Your task to perform on an android device: check storage Image 0: 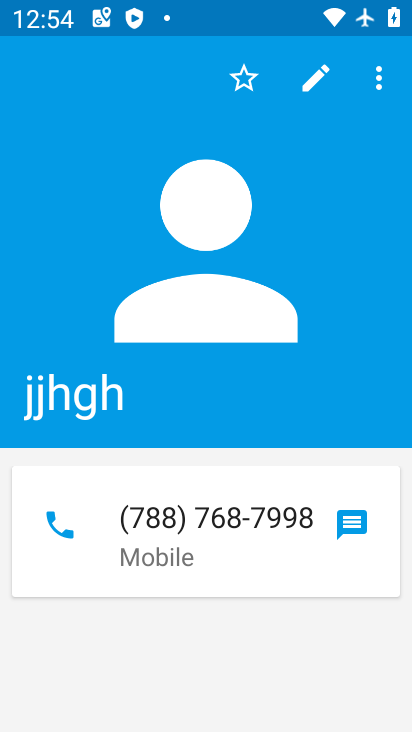
Step 0: press back button
Your task to perform on an android device: check storage Image 1: 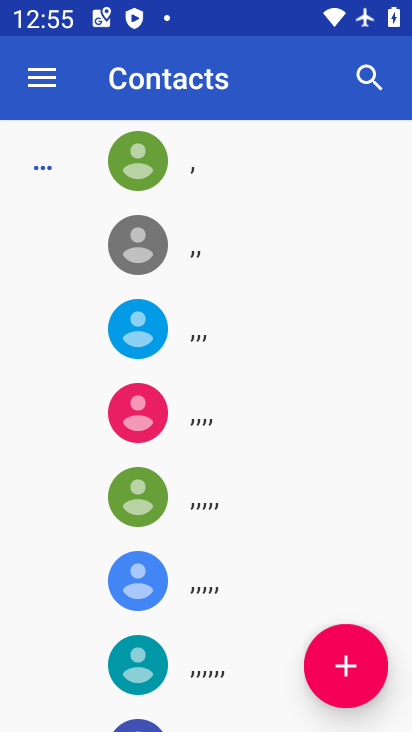
Step 1: press home button
Your task to perform on an android device: check storage Image 2: 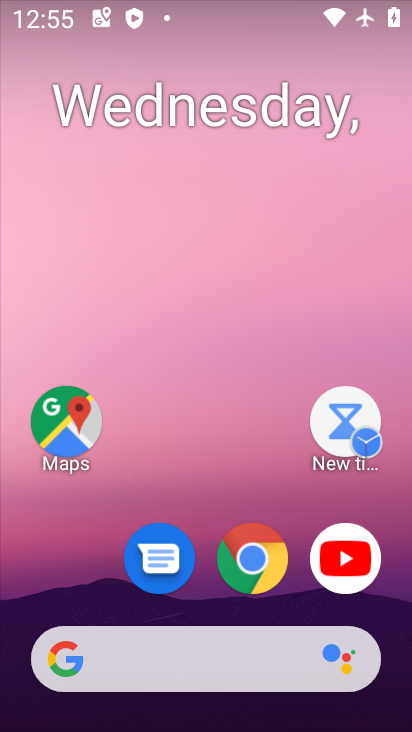
Step 2: drag from (272, 691) to (139, 88)
Your task to perform on an android device: check storage Image 3: 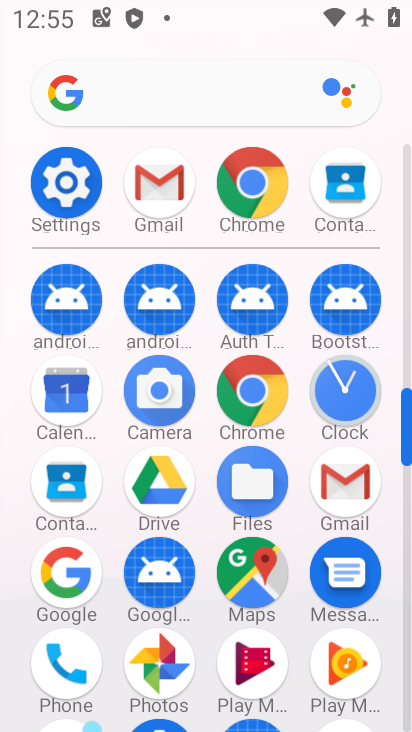
Step 3: click (61, 187)
Your task to perform on an android device: check storage Image 4: 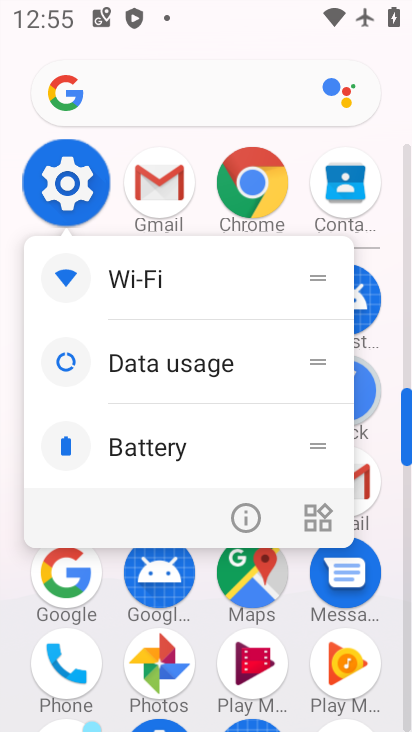
Step 4: click (72, 181)
Your task to perform on an android device: check storage Image 5: 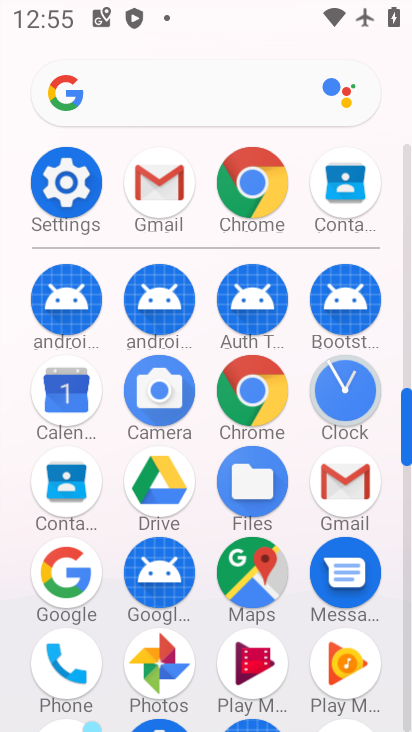
Step 5: click (81, 171)
Your task to perform on an android device: check storage Image 6: 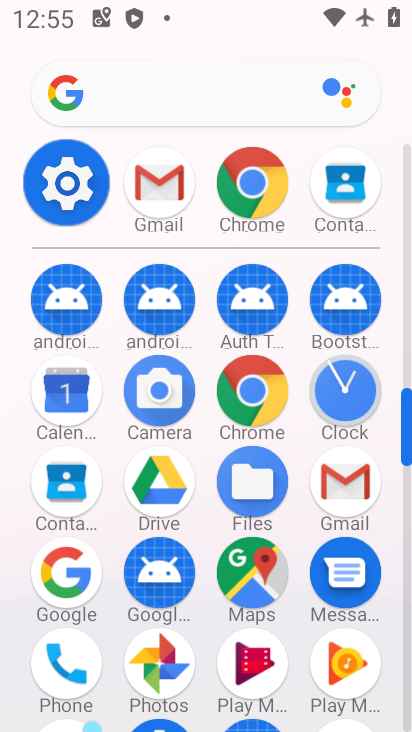
Step 6: click (68, 182)
Your task to perform on an android device: check storage Image 7: 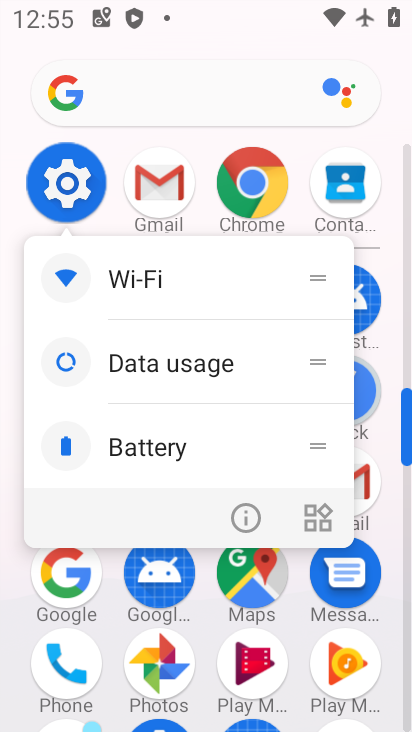
Step 7: click (74, 185)
Your task to perform on an android device: check storage Image 8: 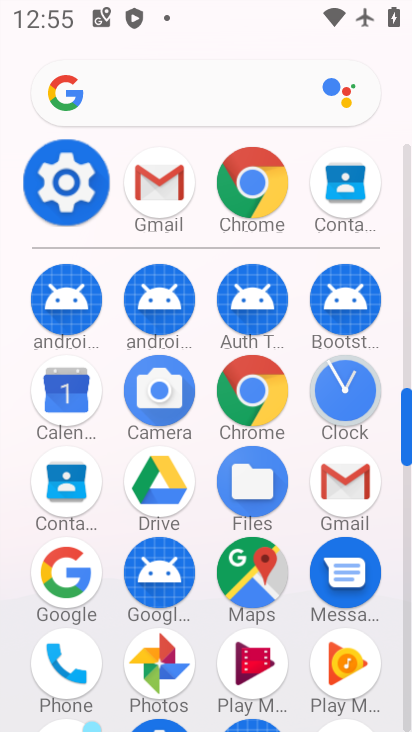
Step 8: click (51, 177)
Your task to perform on an android device: check storage Image 9: 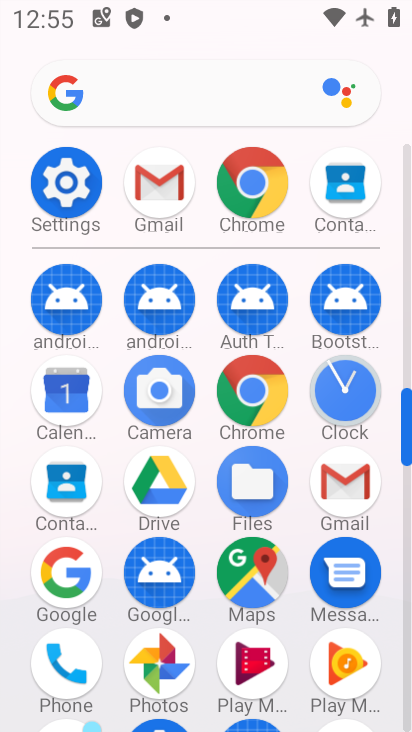
Step 9: click (66, 198)
Your task to perform on an android device: check storage Image 10: 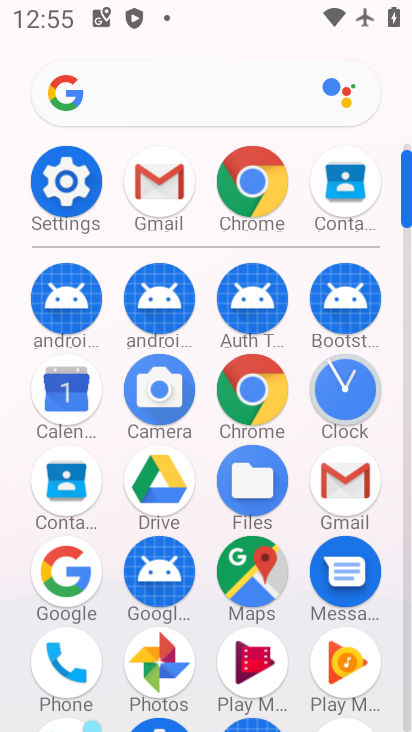
Step 10: click (69, 168)
Your task to perform on an android device: check storage Image 11: 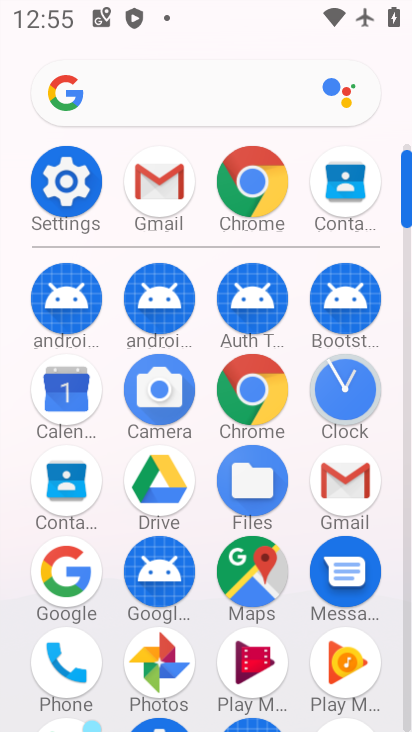
Step 11: click (74, 194)
Your task to perform on an android device: check storage Image 12: 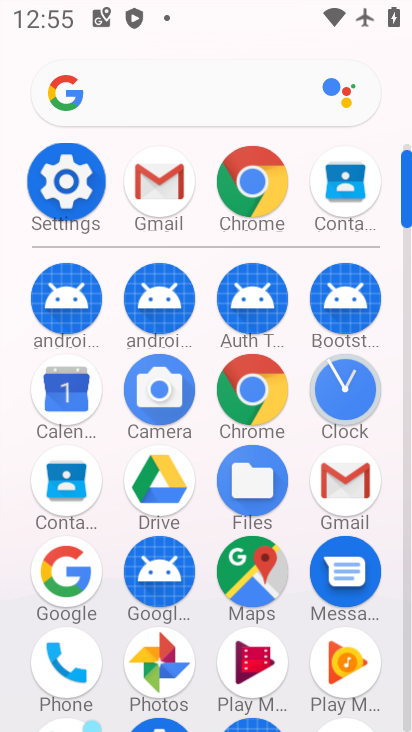
Step 12: click (70, 186)
Your task to perform on an android device: check storage Image 13: 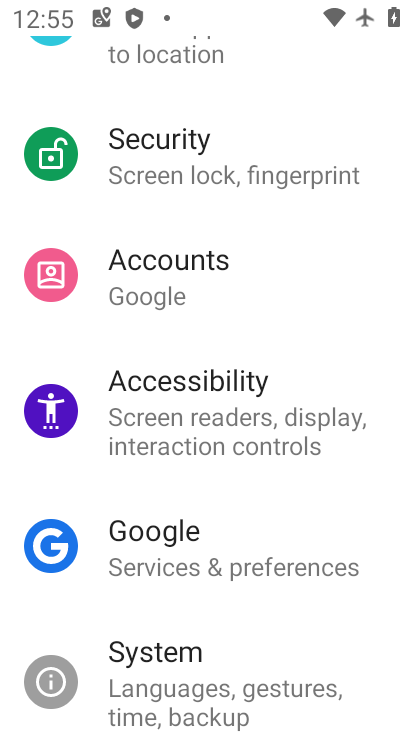
Step 13: drag from (155, 192) to (222, 405)
Your task to perform on an android device: check storage Image 14: 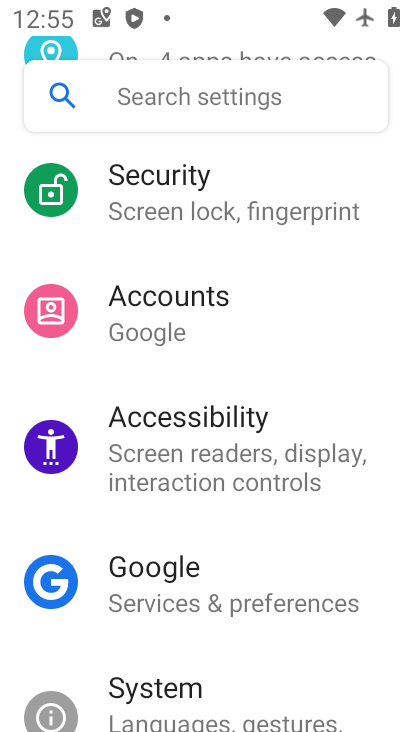
Step 14: drag from (191, 204) to (213, 486)
Your task to perform on an android device: check storage Image 15: 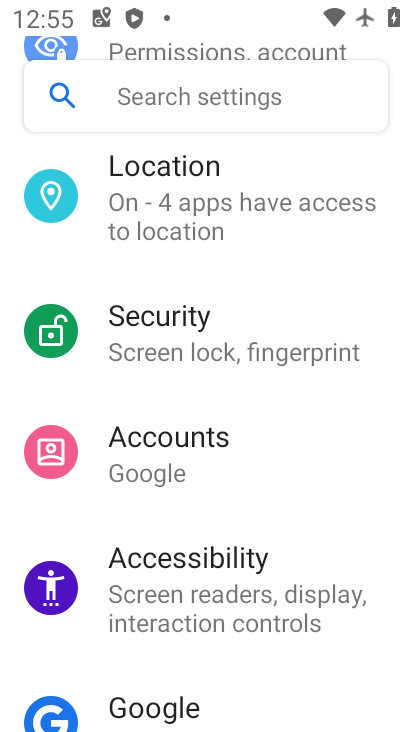
Step 15: drag from (155, 222) to (189, 455)
Your task to perform on an android device: check storage Image 16: 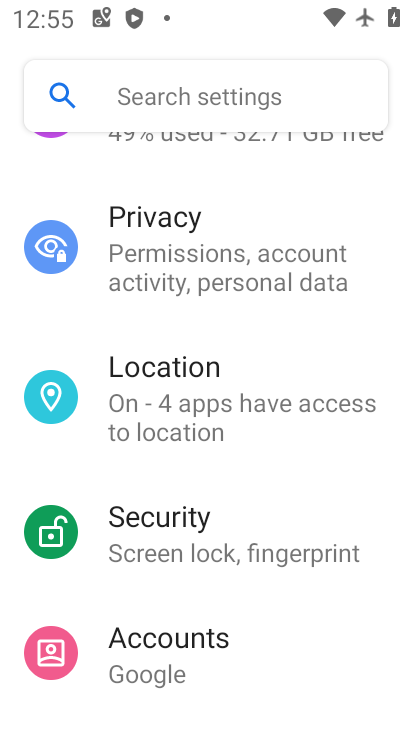
Step 16: drag from (125, 219) to (199, 501)
Your task to perform on an android device: check storage Image 17: 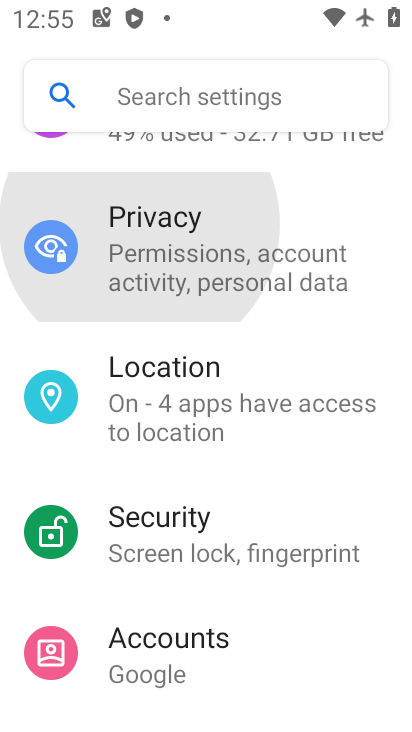
Step 17: drag from (147, 216) to (216, 486)
Your task to perform on an android device: check storage Image 18: 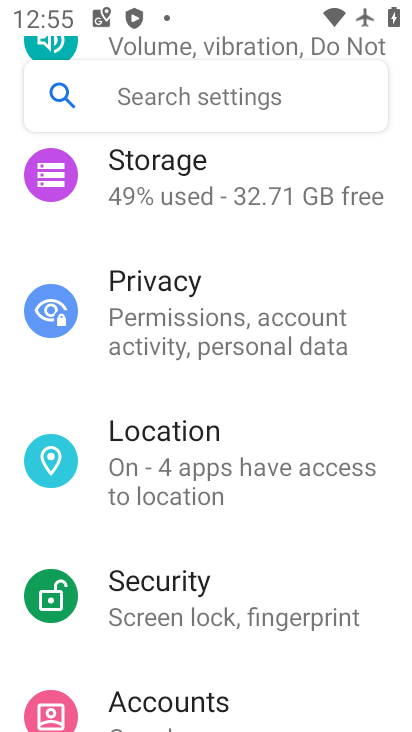
Step 18: drag from (165, 220) to (217, 518)
Your task to perform on an android device: check storage Image 19: 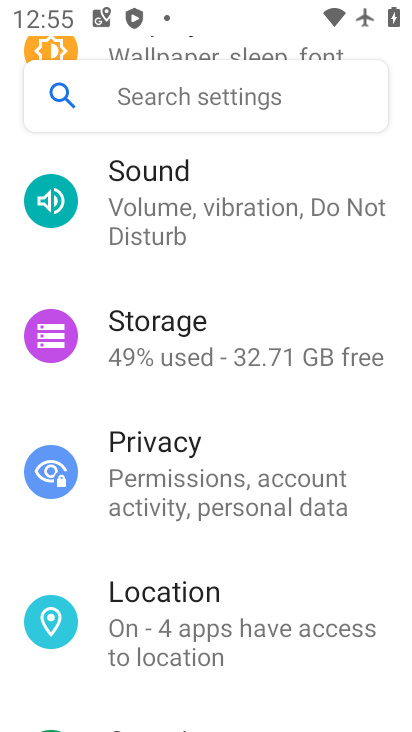
Step 19: drag from (109, 244) to (187, 547)
Your task to perform on an android device: check storage Image 20: 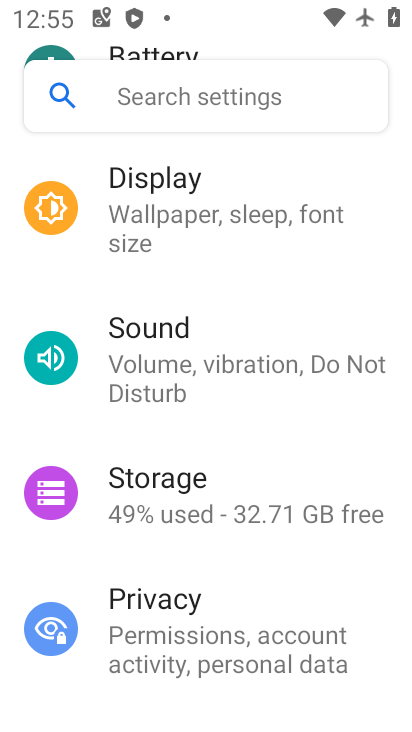
Step 20: drag from (153, 443) to (149, 406)
Your task to perform on an android device: check storage Image 21: 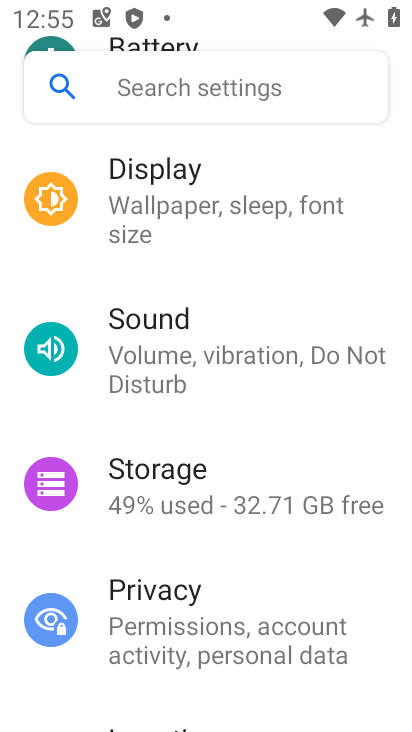
Step 21: click (155, 508)
Your task to perform on an android device: check storage Image 22: 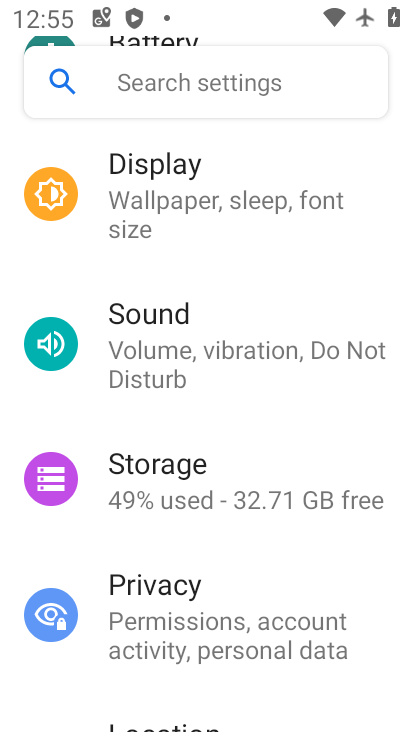
Step 22: click (158, 505)
Your task to perform on an android device: check storage Image 23: 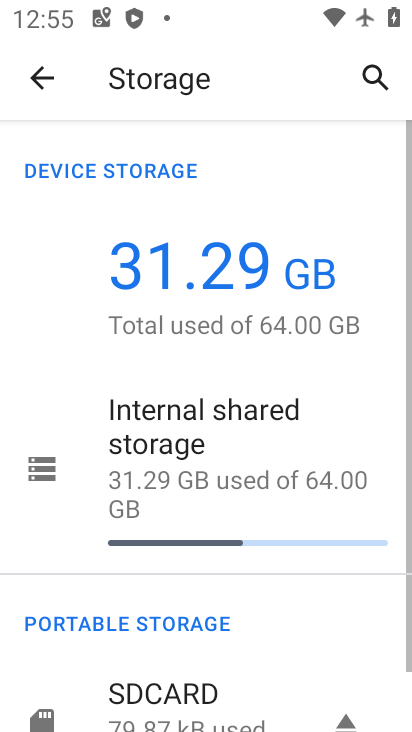
Step 23: click (196, 517)
Your task to perform on an android device: check storage Image 24: 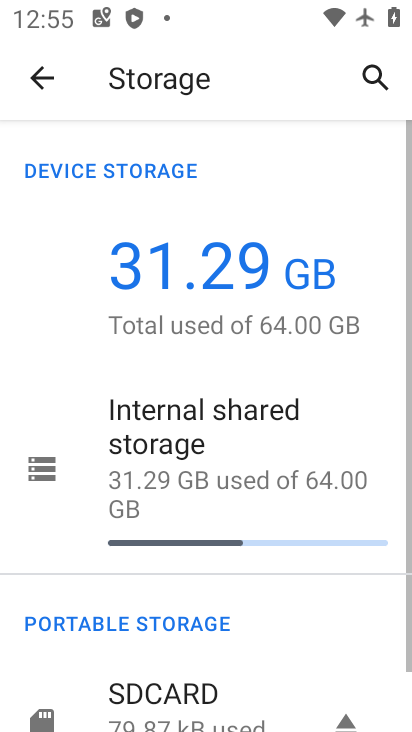
Step 24: click (206, 514)
Your task to perform on an android device: check storage Image 25: 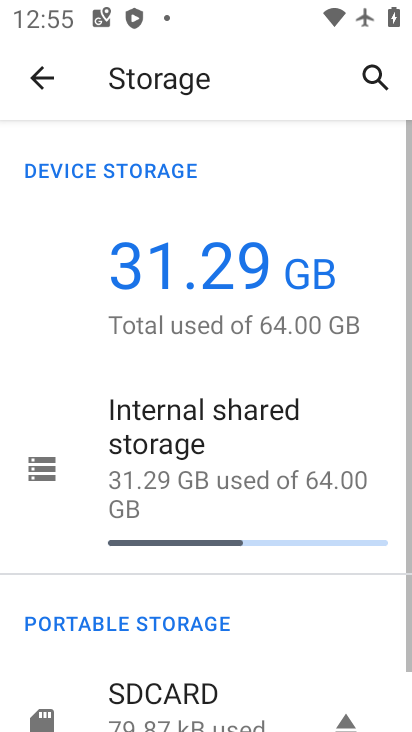
Step 25: click (208, 518)
Your task to perform on an android device: check storage Image 26: 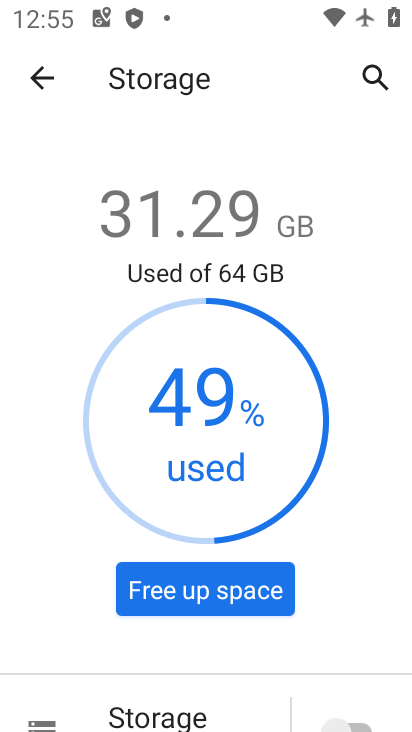
Step 26: task complete